Your task to perform on an android device: turn notification dots off Image 0: 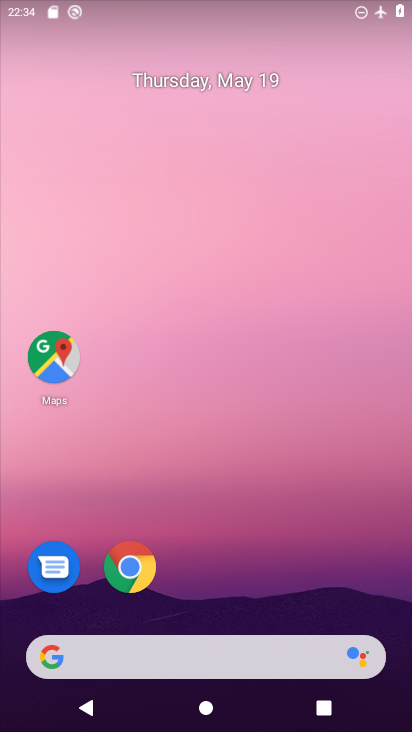
Step 0: click (239, 141)
Your task to perform on an android device: turn notification dots off Image 1: 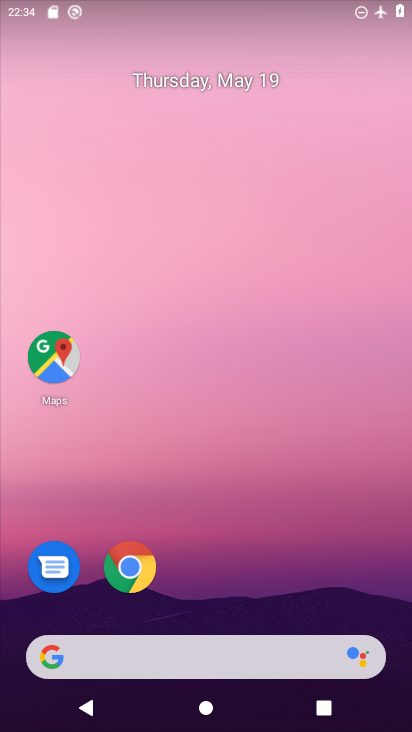
Step 1: drag from (225, 604) to (253, 102)
Your task to perform on an android device: turn notification dots off Image 2: 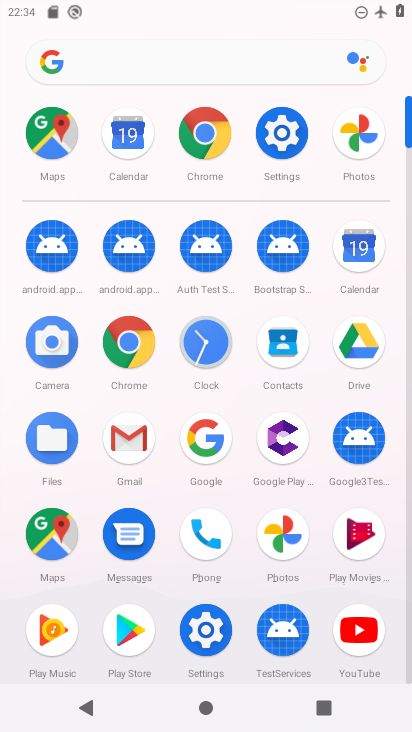
Step 2: click (278, 129)
Your task to perform on an android device: turn notification dots off Image 3: 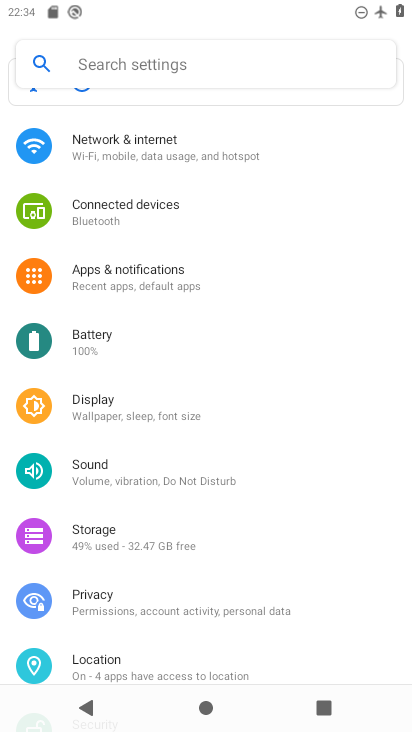
Step 3: click (209, 264)
Your task to perform on an android device: turn notification dots off Image 4: 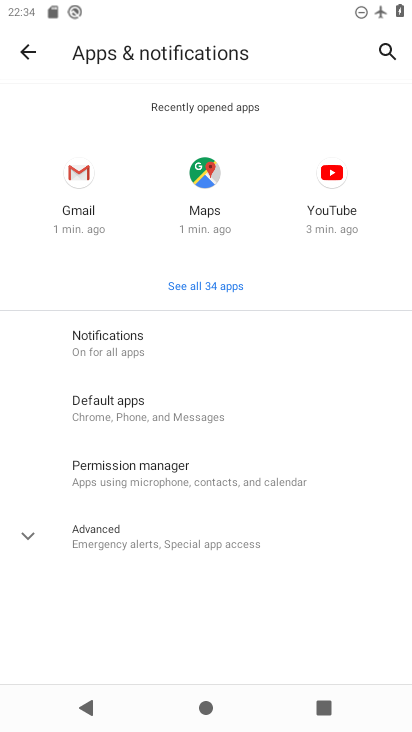
Step 4: click (155, 335)
Your task to perform on an android device: turn notification dots off Image 5: 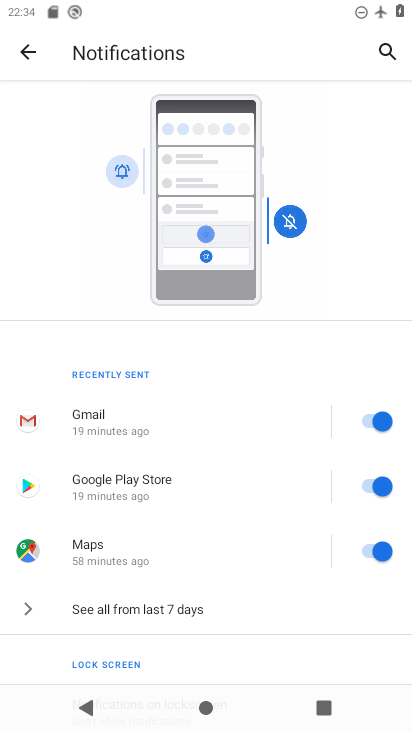
Step 5: drag from (220, 439) to (247, 122)
Your task to perform on an android device: turn notification dots off Image 6: 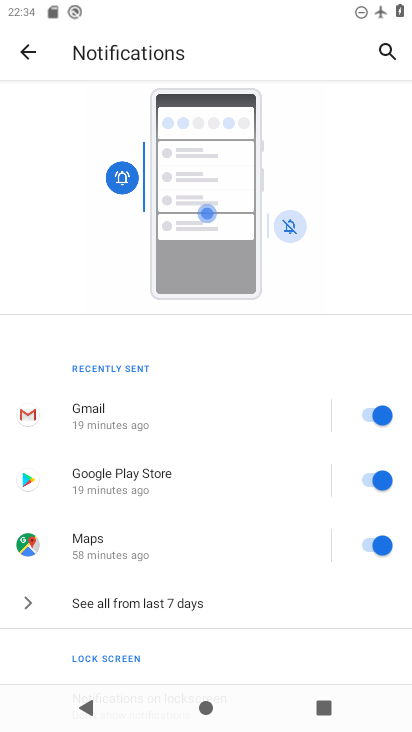
Step 6: drag from (234, 614) to (251, 378)
Your task to perform on an android device: turn notification dots off Image 7: 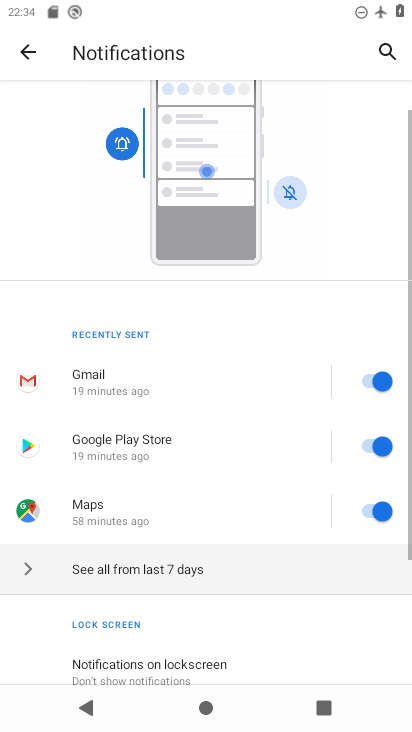
Step 7: click (274, 150)
Your task to perform on an android device: turn notification dots off Image 8: 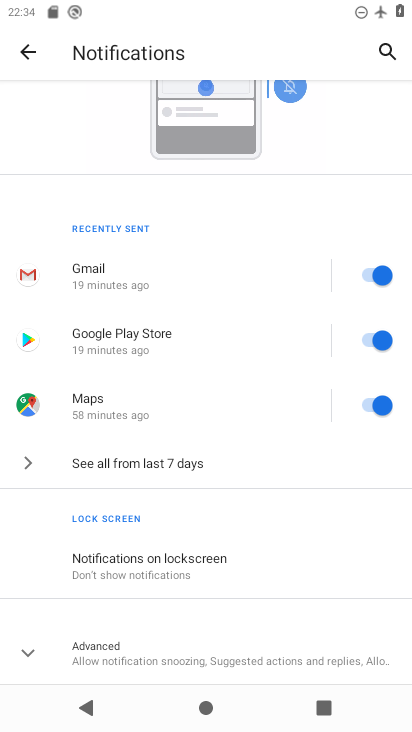
Step 8: click (97, 650)
Your task to perform on an android device: turn notification dots off Image 9: 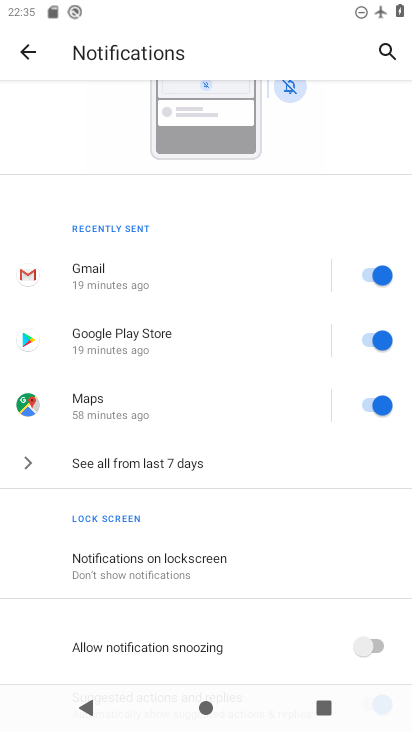
Step 9: drag from (204, 619) to (225, 151)
Your task to perform on an android device: turn notification dots off Image 10: 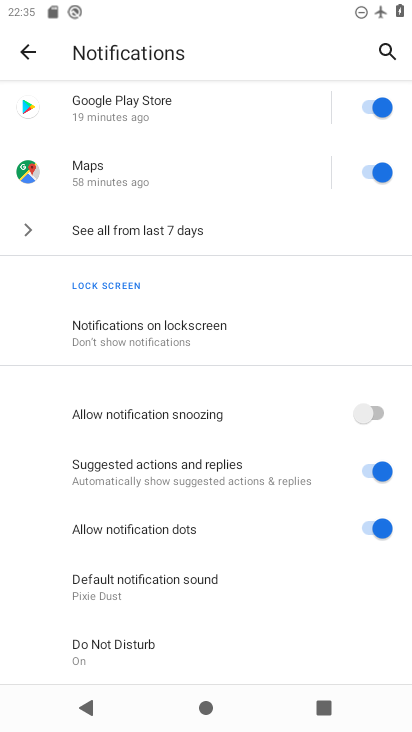
Step 10: click (368, 537)
Your task to perform on an android device: turn notification dots off Image 11: 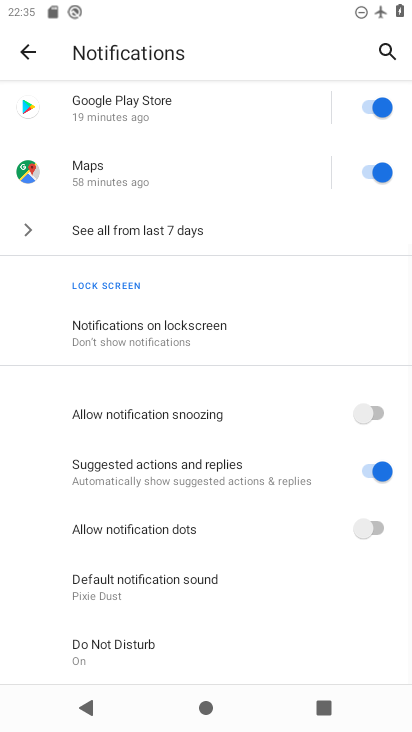
Step 11: task complete